Your task to perform on an android device: Open CNN.com Image 0: 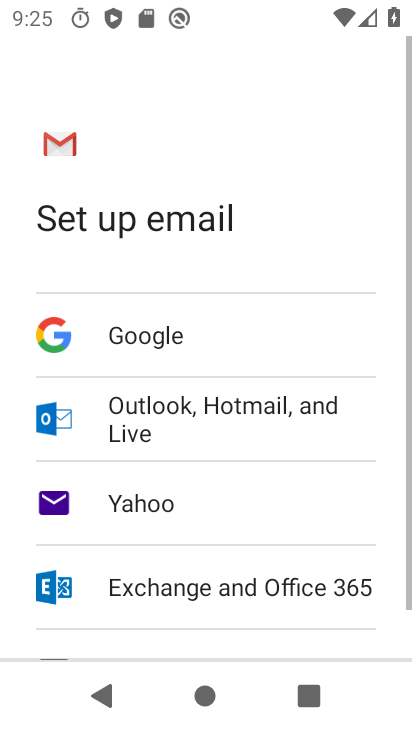
Step 0: press home button
Your task to perform on an android device: Open CNN.com Image 1: 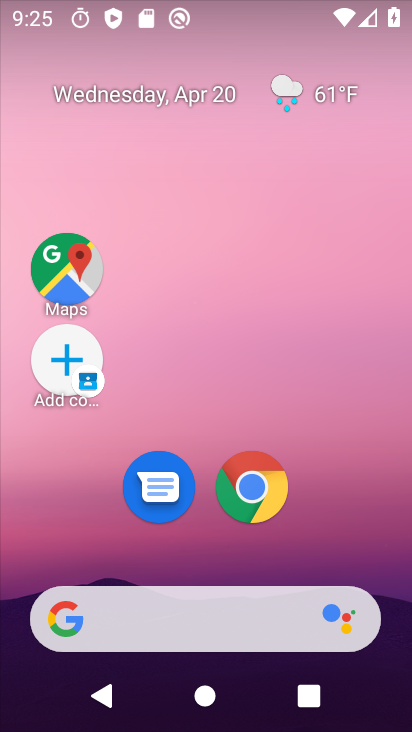
Step 1: click (261, 492)
Your task to perform on an android device: Open CNN.com Image 2: 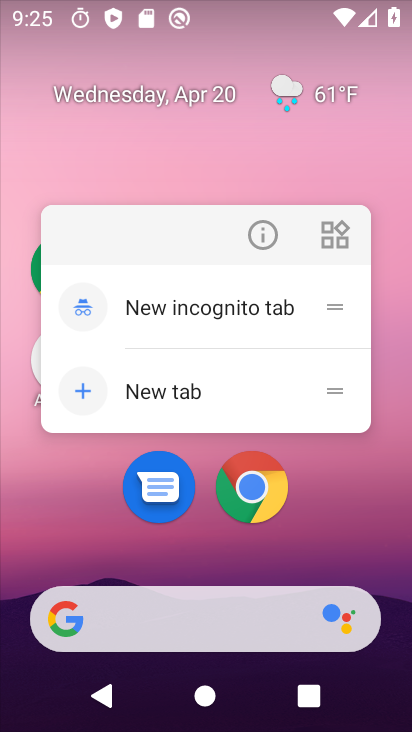
Step 2: click (258, 492)
Your task to perform on an android device: Open CNN.com Image 3: 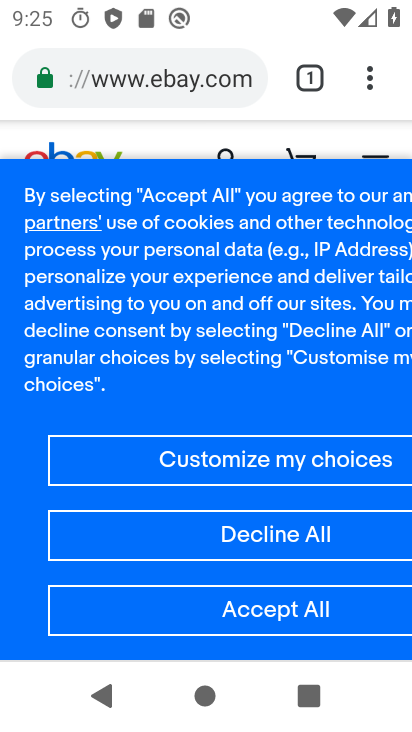
Step 3: click (198, 73)
Your task to perform on an android device: Open CNN.com Image 4: 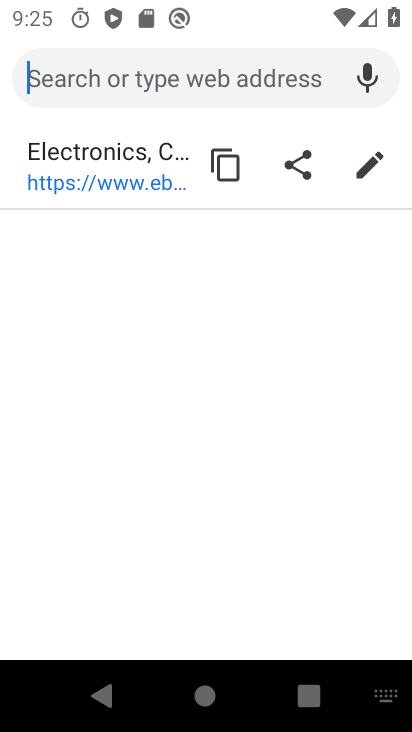
Step 4: type "CNN.com"
Your task to perform on an android device: Open CNN.com Image 5: 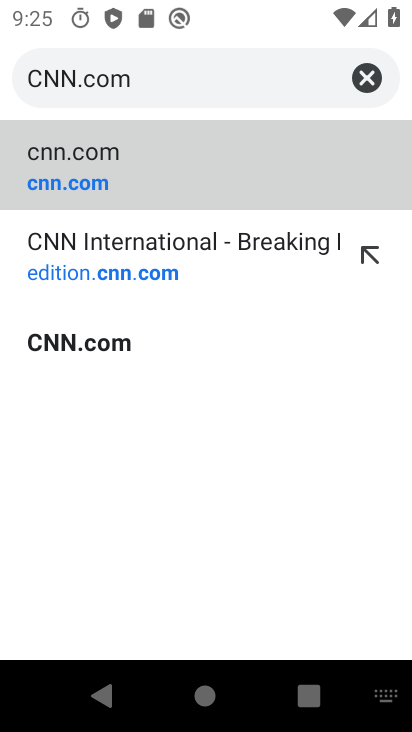
Step 5: click (63, 181)
Your task to perform on an android device: Open CNN.com Image 6: 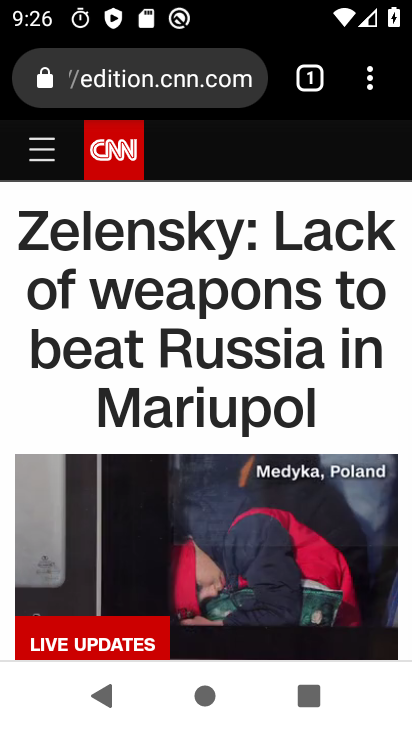
Step 6: task complete